Your task to perform on an android device: turn pop-ups off in chrome Image 0: 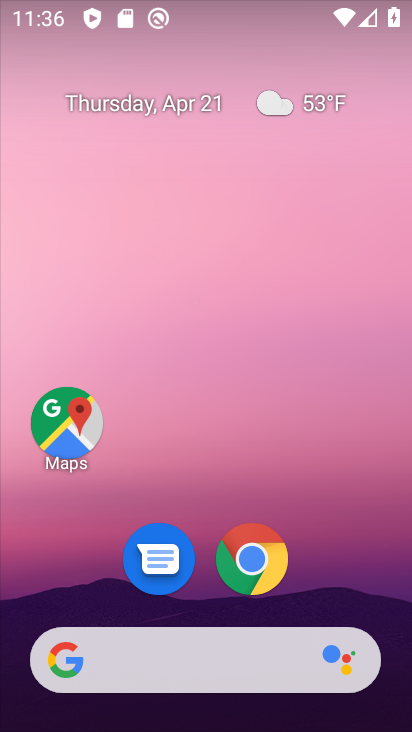
Step 0: click (263, 561)
Your task to perform on an android device: turn pop-ups off in chrome Image 1: 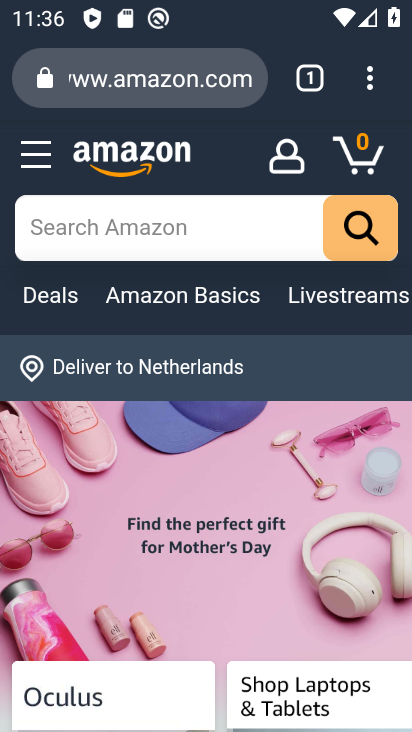
Step 1: click (373, 86)
Your task to perform on an android device: turn pop-ups off in chrome Image 2: 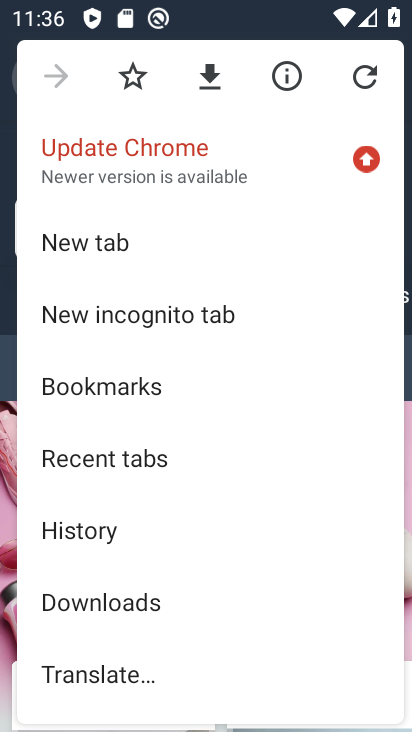
Step 2: drag from (207, 582) to (229, 180)
Your task to perform on an android device: turn pop-ups off in chrome Image 3: 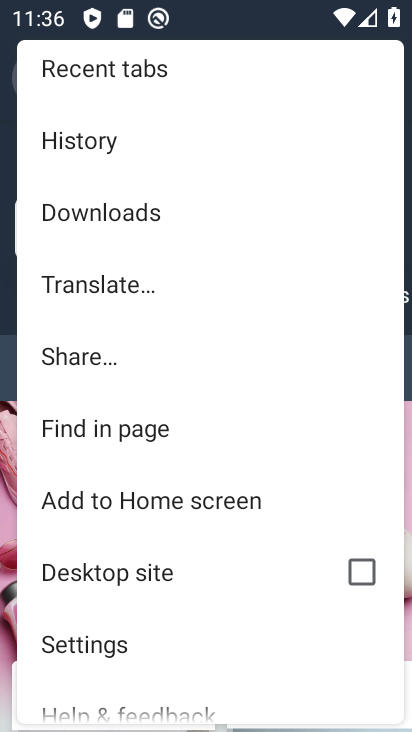
Step 3: click (110, 652)
Your task to perform on an android device: turn pop-ups off in chrome Image 4: 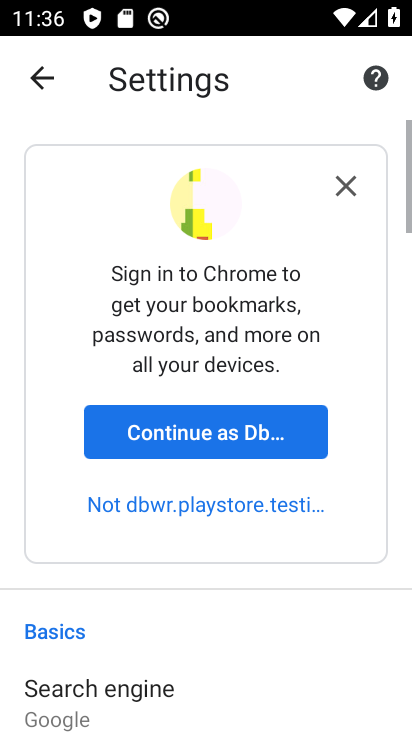
Step 4: drag from (203, 645) to (192, 237)
Your task to perform on an android device: turn pop-ups off in chrome Image 5: 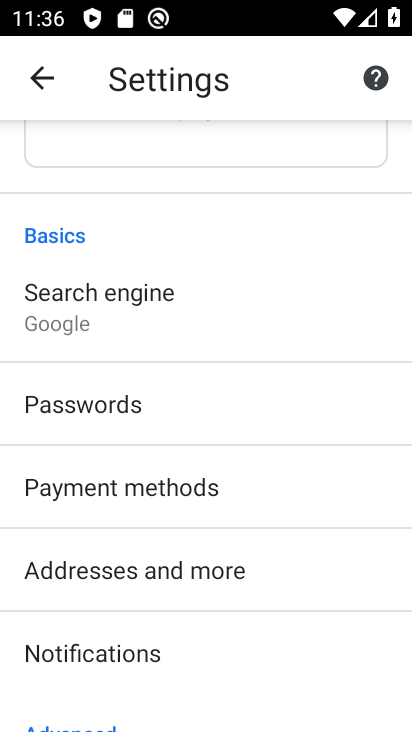
Step 5: drag from (195, 537) to (186, 262)
Your task to perform on an android device: turn pop-ups off in chrome Image 6: 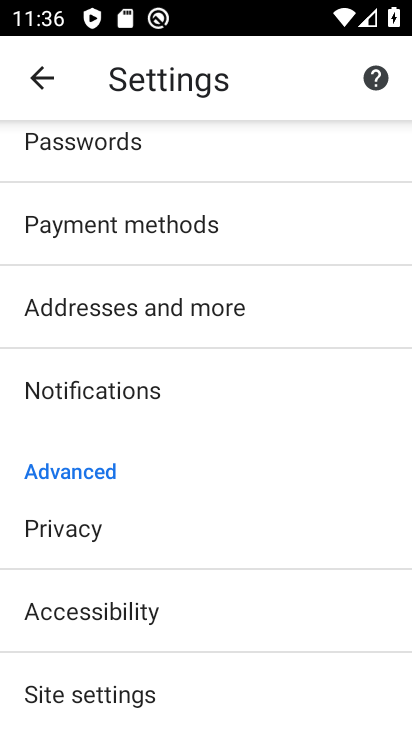
Step 6: click (129, 704)
Your task to perform on an android device: turn pop-ups off in chrome Image 7: 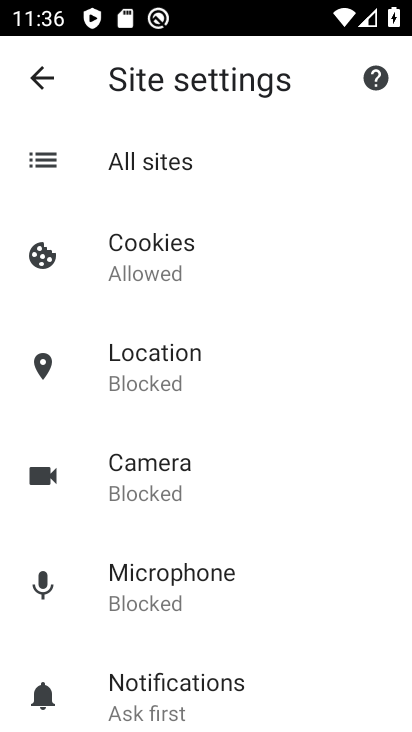
Step 7: drag from (229, 696) to (226, 270)
Your task to perform on an android device: turn pop-ups off in chrome Image 8: 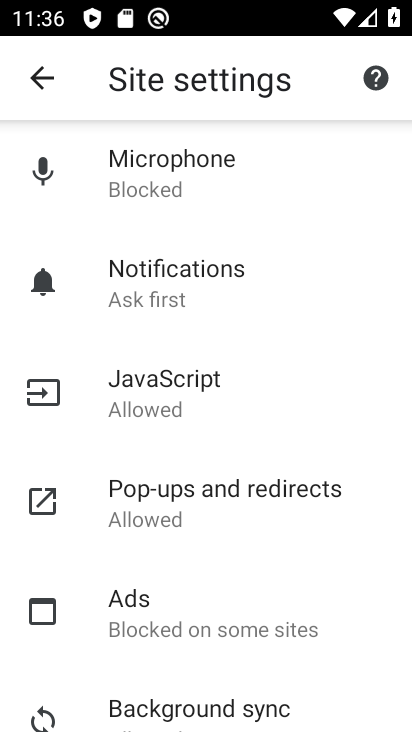
Step 8: click (151, 502)
Your task to perform on an android device: turn pop-ups off in chrome Image 9: 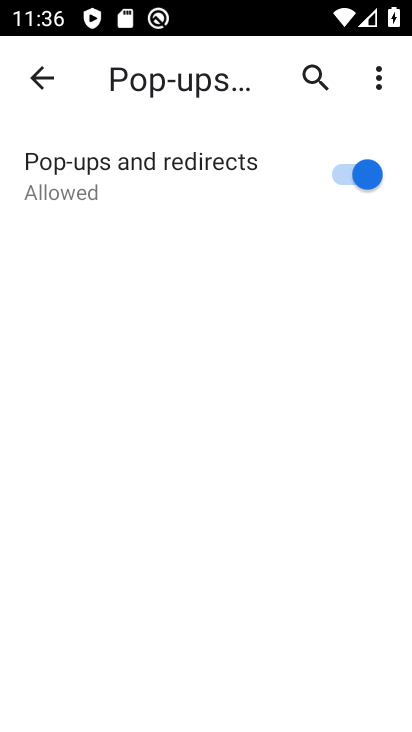
Step 9: click (357, 172)
Your task to perform on an android device: turn pop-ups off in chrome Image 10: 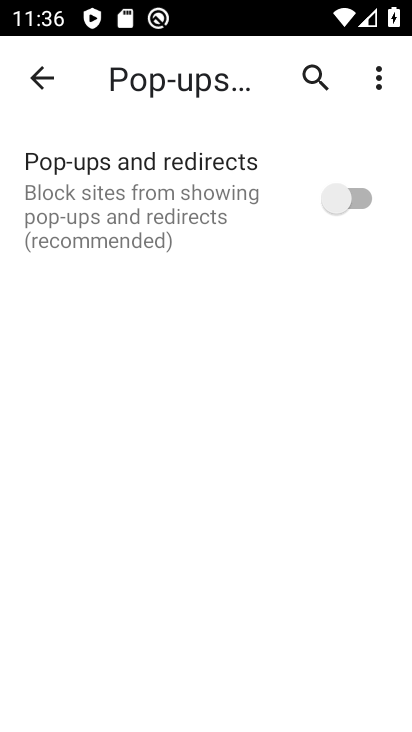
Step 10: task complete